Your task to perform on an android device: turn vacation reply on in the gmail app Image 0: 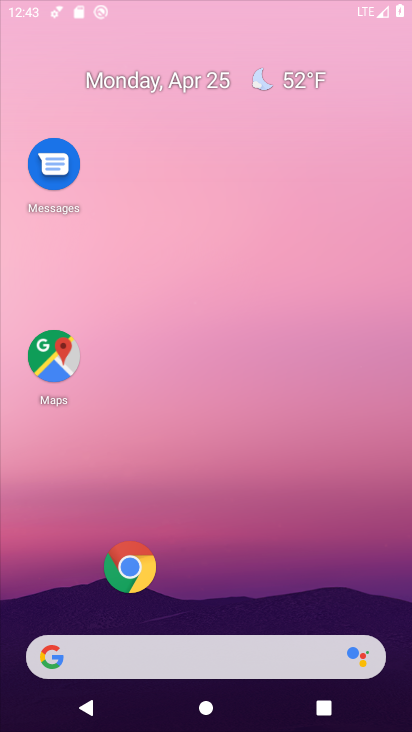
Step 0: drag from (279, 590) to (297, 205)
Your task to perform on an android device: turn vacation reply on in the gmail app Image 1: 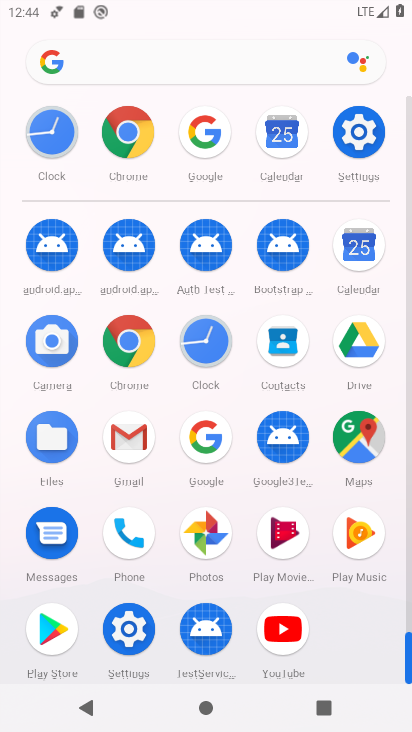
Step 1: click (136, 448)
Your task to perform on an android device: turn vacation reply on in the gmail app Image 2: 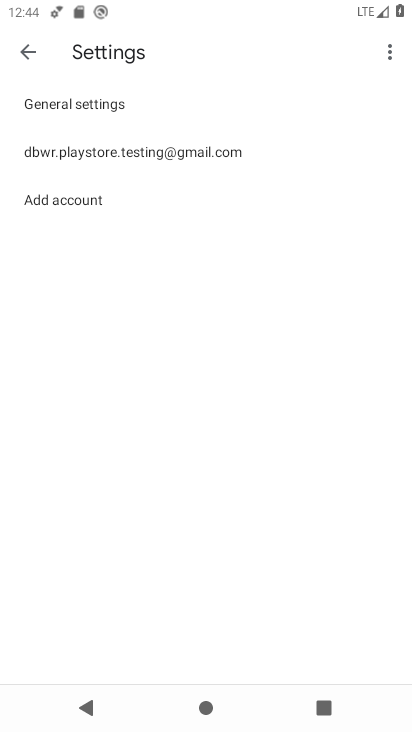
Step 2: click (160, 149)
Your task to perform on an android device: turn vacation reply on in the gmail app Image 3: 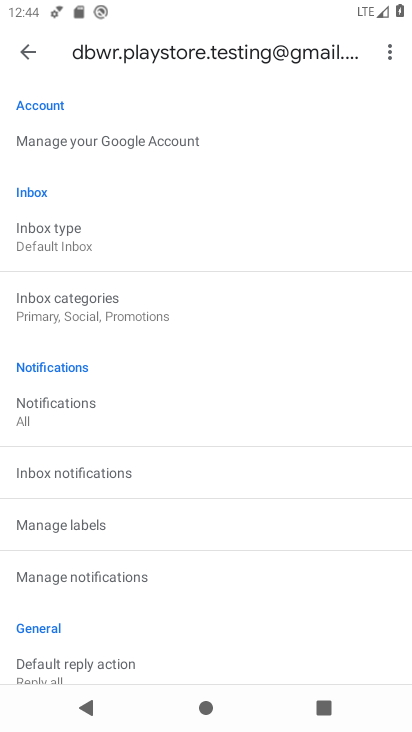
Step 3: drag from (227, 535) to (210, 135)
Your task to perform on an android device: turn vacation reply on in the gmail app Image 4: 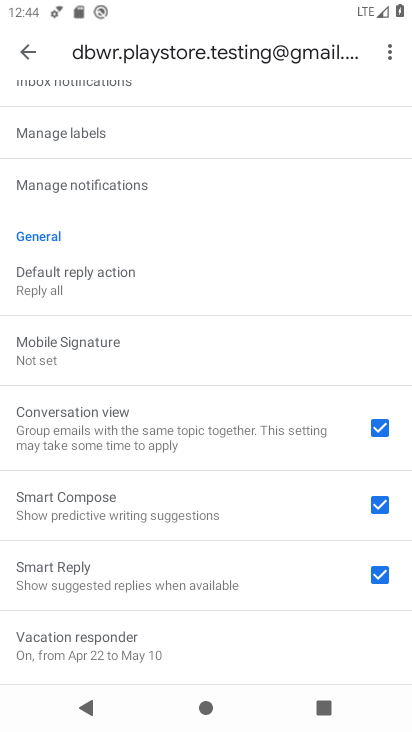
Step 4: drag from (215, 513) to (237, 358)
Your task to perform on an android device: turn vacation reply on in the gmail app Image 5: 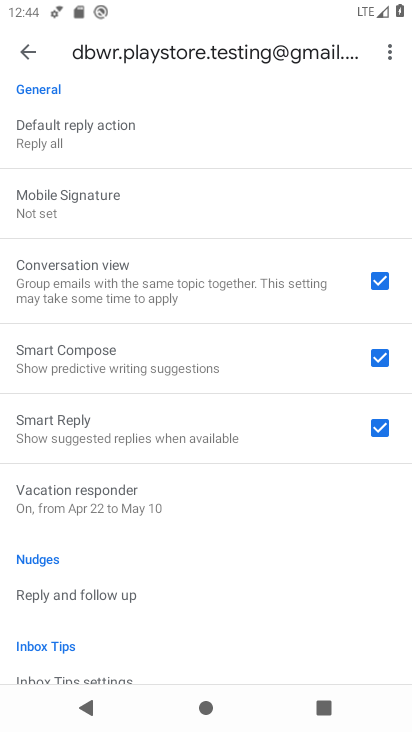
Step 5: click (261, 499)
Your task to perform on an android device: turn vacation reply on in the gmail app Image 6: 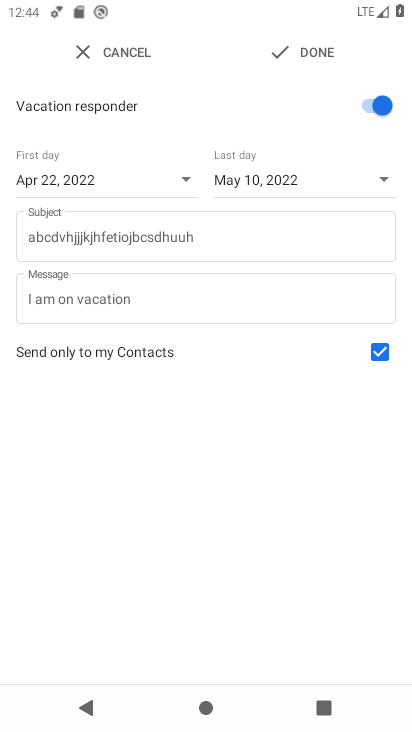
Step 6: task complete